Your task to perform on an android device: What's the news about the US president? Image 0: 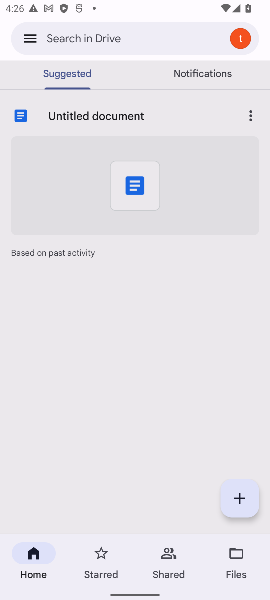
Step 0: press home button
Your task to perform on an android device: What's the news about the US president? Image 1: 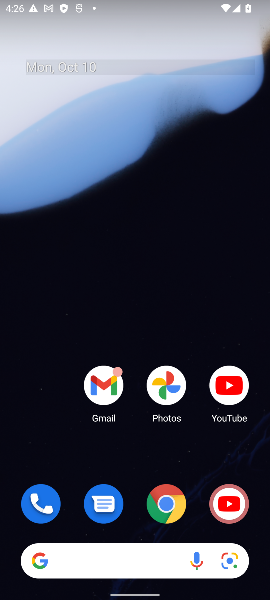
Step 1: drag from (206, 544) to (268, 95)
Your task to perform on an android device: What's the news about the US president? Image 2: 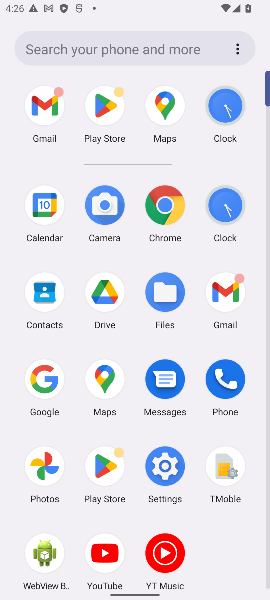
Step 2: click (162, 204)
Your task to perform on an android device: What's the news about the US president? Image 3: 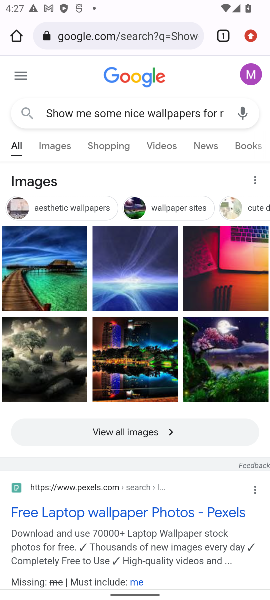
Step 3: click (171, 34)
Your task to perform on an android device: What's the news about the US president? Image 4: 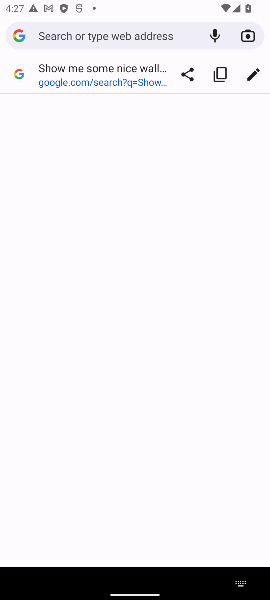
Step 4: type "What's the news about the US president?"
Your task to perform on an android device: What's the news about the US president? Image 5: 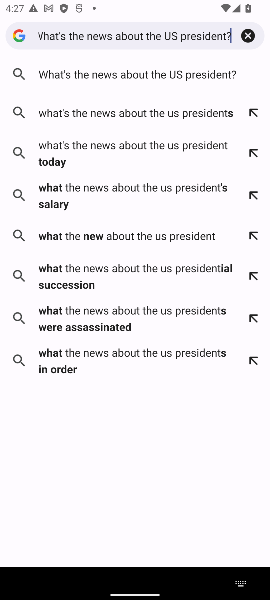
Step 5: press enter
Your task to perform on an android device: What's the news about the US president? Image 6: 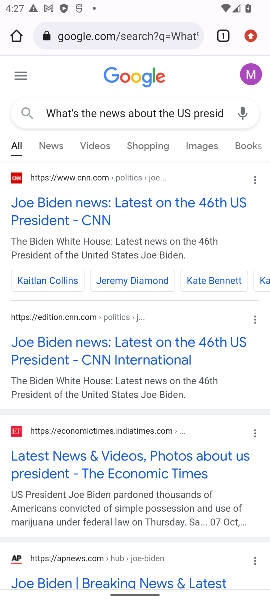
Step 6: click (60, 177)
Your task to perform on an android device: What's the news about the US president? Image 7: 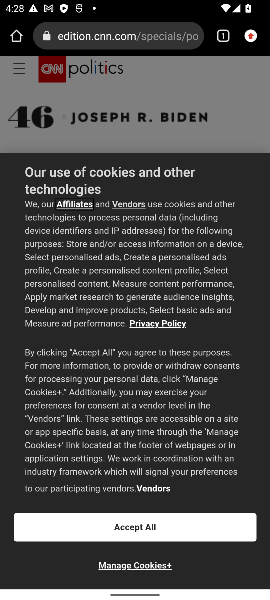
Step 7: task complete